Your task to perform on an android device: What's the weather going to be this weekend? Image 0: 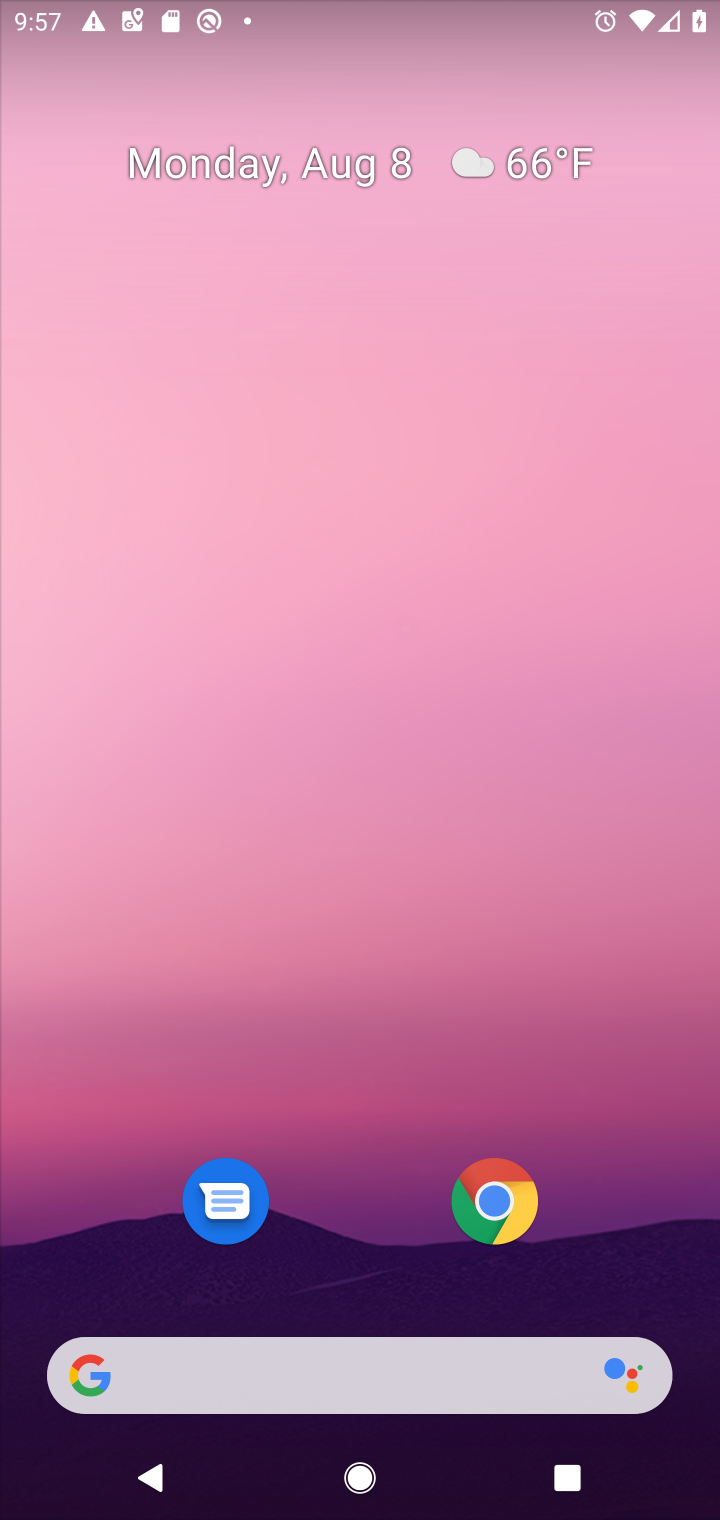
Step 0: press home button
Your task to perform on an android device: What's the weather going to be this weekend? Image 1: 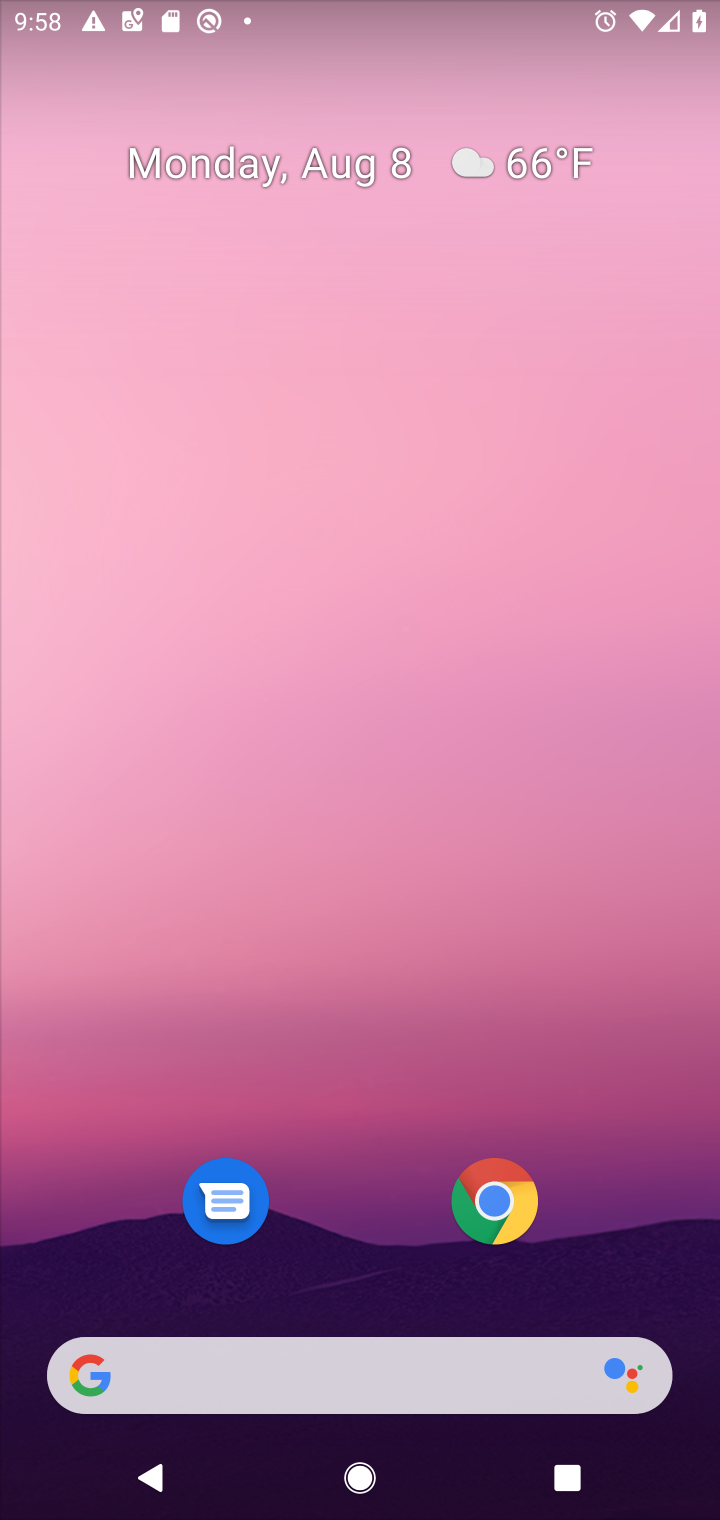
Step 1: click (340, 1380)
Your task to perform on an android device: What's the weather going to be this weekend? Image 2: 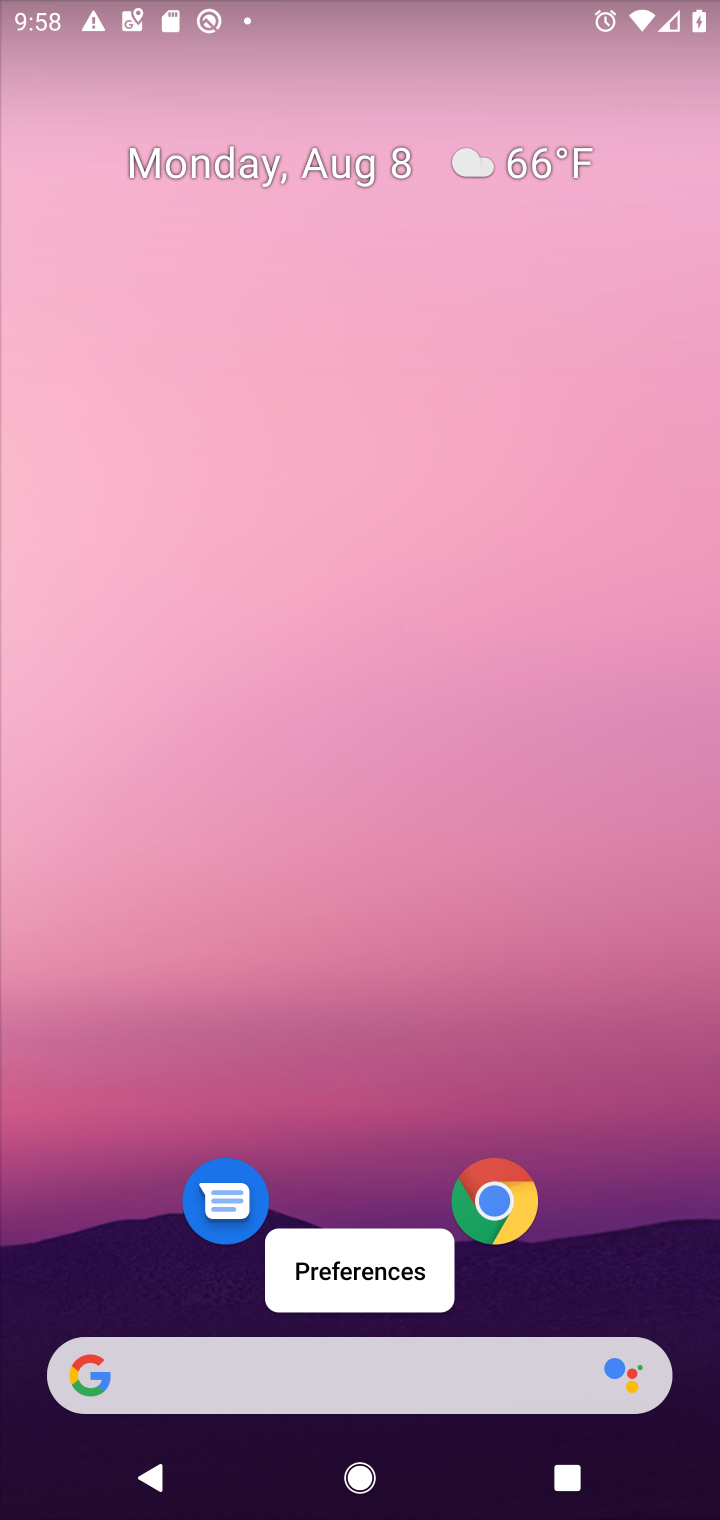
Step 2: click (259, 1367)
Your task to perform on an android device: What's the weather going to be this weekend? Image 3: 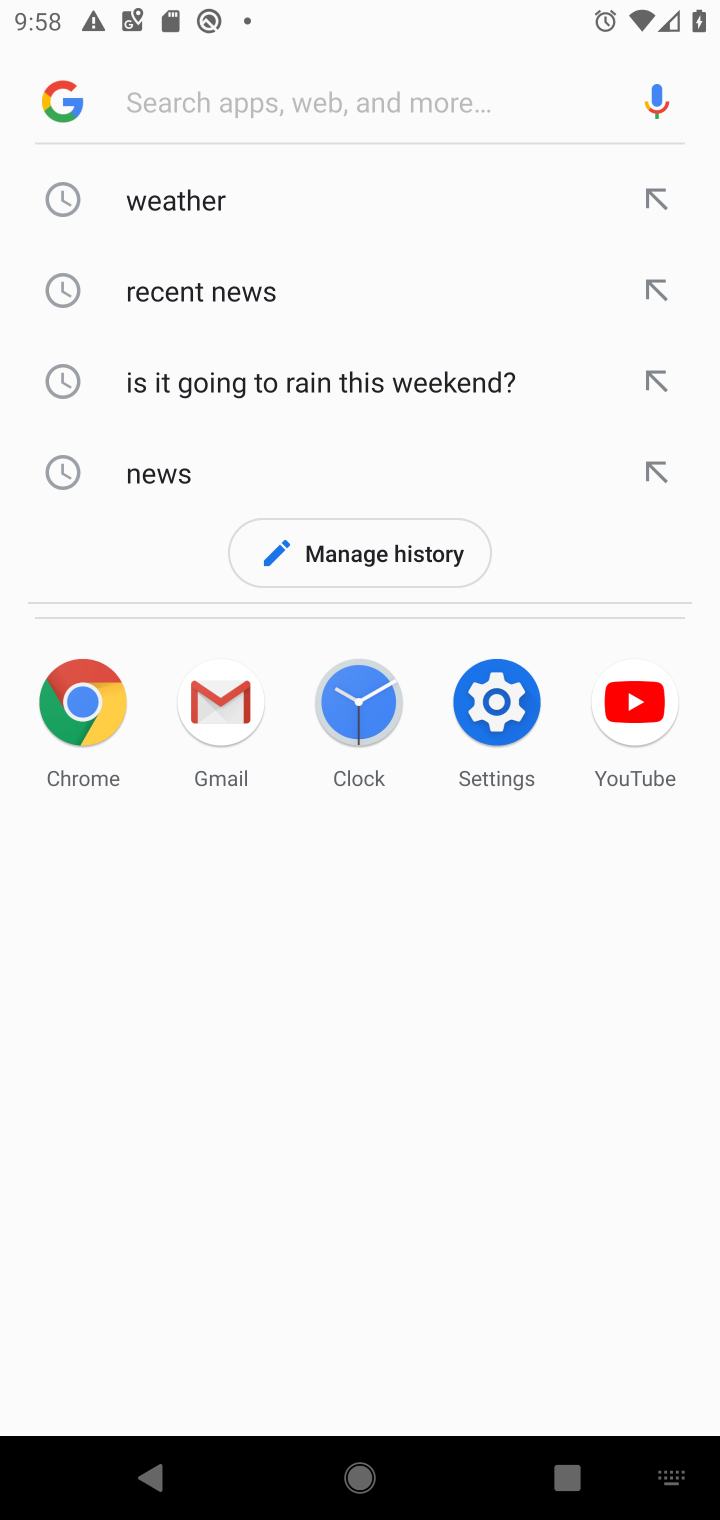
Step 3: click (206, 212)
Your task to perform on an android device: What's the weather going to be this weekend? Image 4: 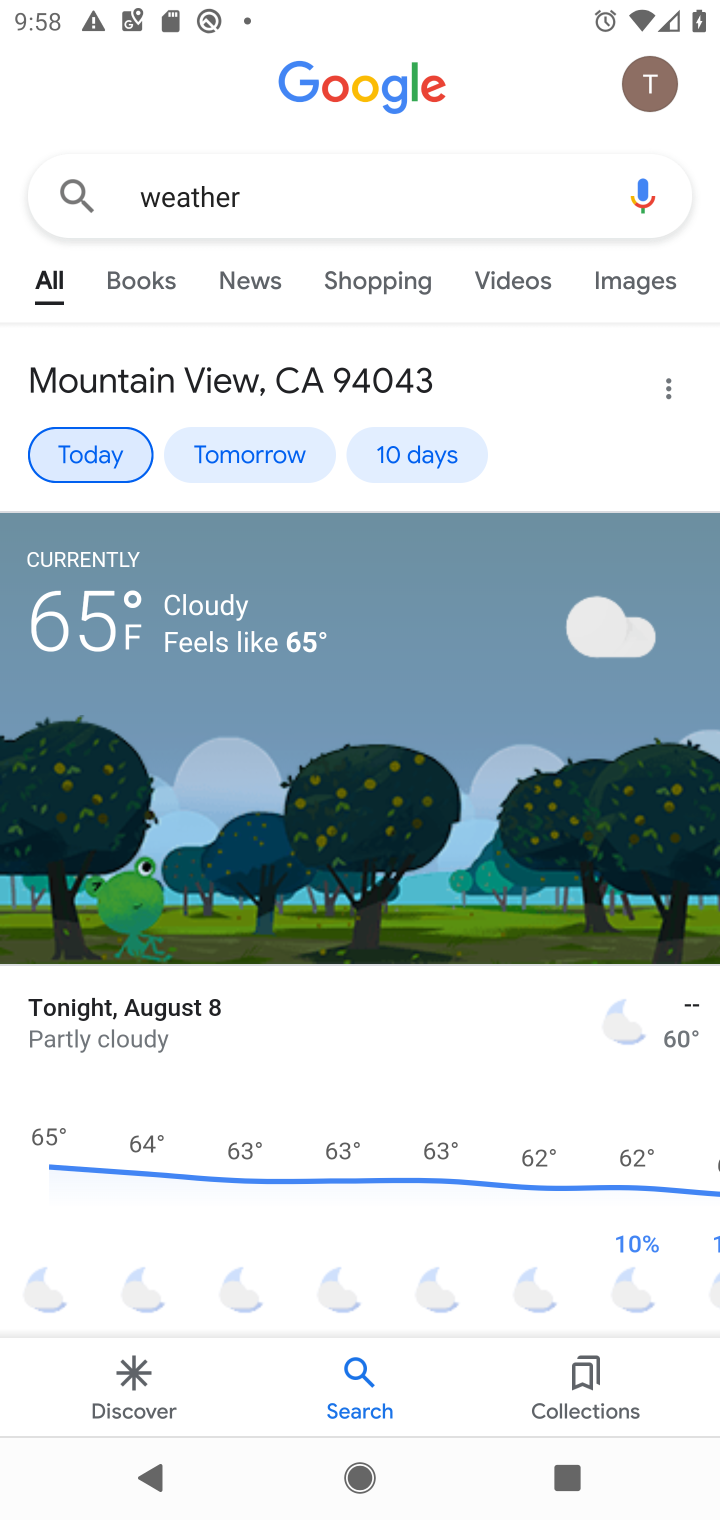
Step 4: click (423, 446)
Your task to perform on an android device: What's the weather going to be this weekend? Image 5: 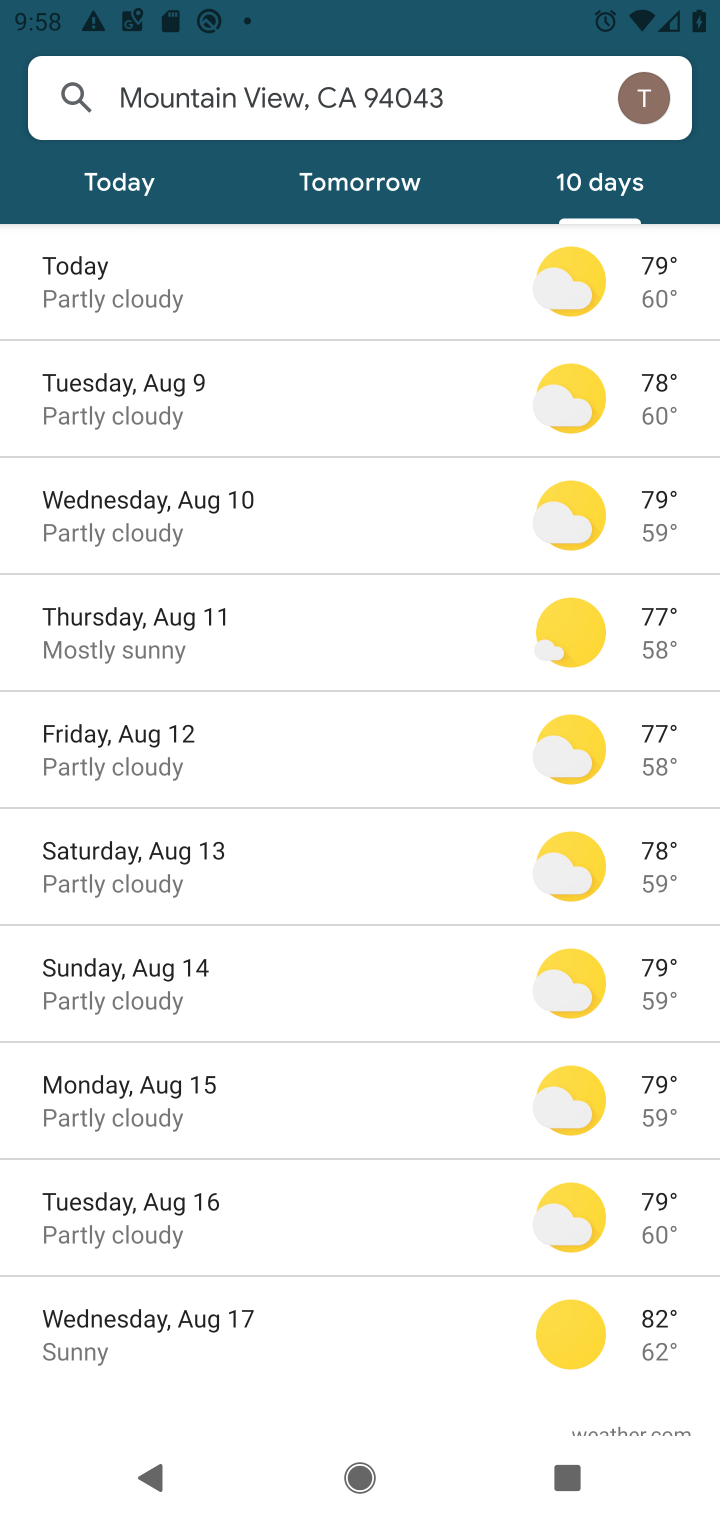
Step 5: click (243, 856)
Your task to perform on an android device: What's the weather going to be this weekend? Image 6: 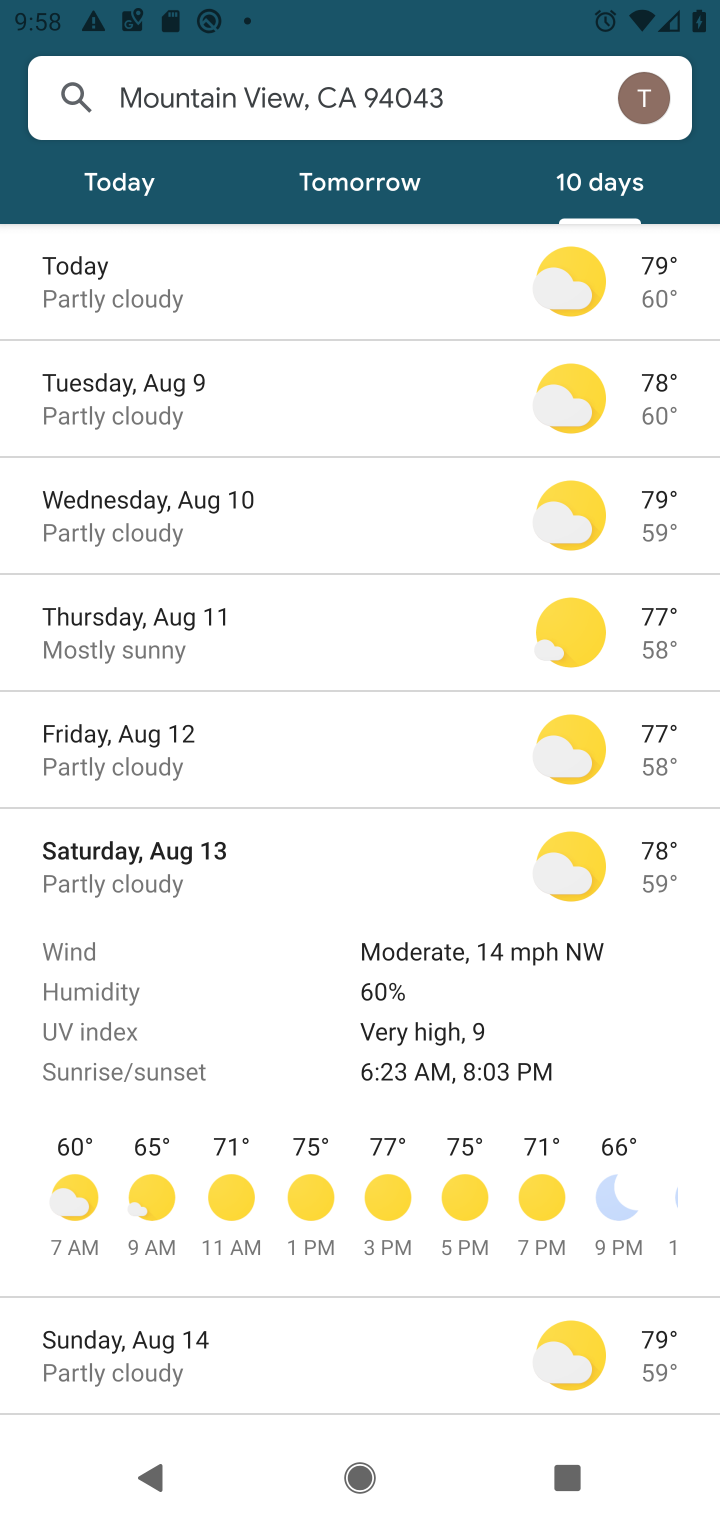
Step 6: task complete